Your task to perform on an android device: turn off data saver in the chrome app Image 0: 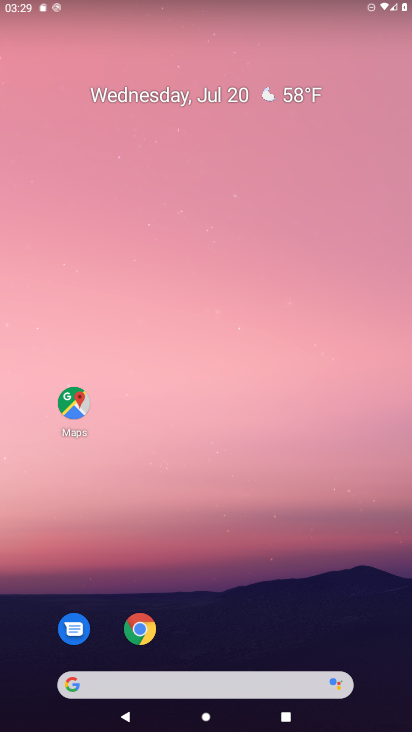
Step 0: drag from (282, 608) to (392, 236)
Your task to perform on an android device: turn off data saver in the chrome app Image 1: 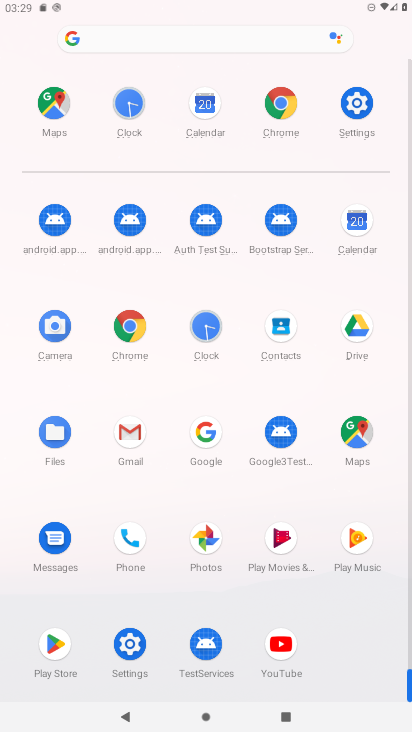
Step 1: click (127, 322)
Your task to perform on an android device: turn off data saver in the chrome app Image 2: 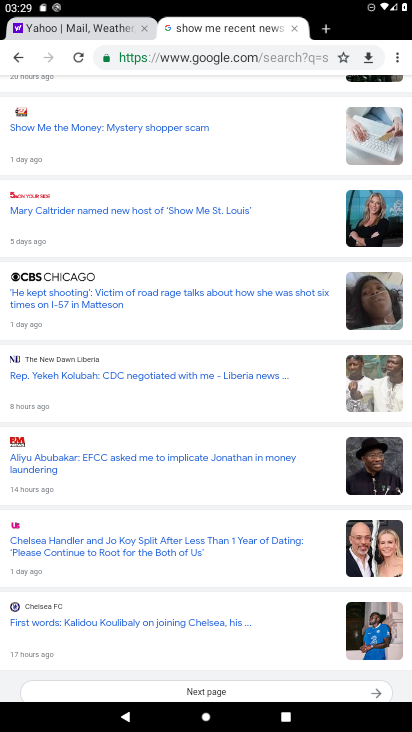
Step 2: drag from (392, 57) to (295, 355)
Your task to perform on an android device: turn off data saver in the chrome app Image 3: 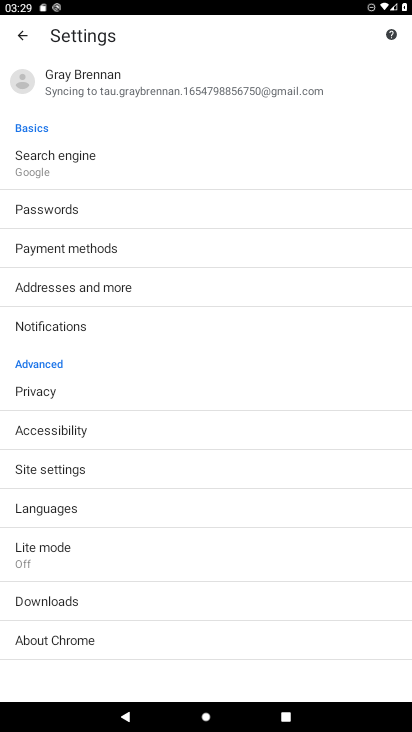
Step 3: drag from (165, 580) to (138, 244)
Your task to perform on an android device: turn off data saver in the chrome app Image 4: 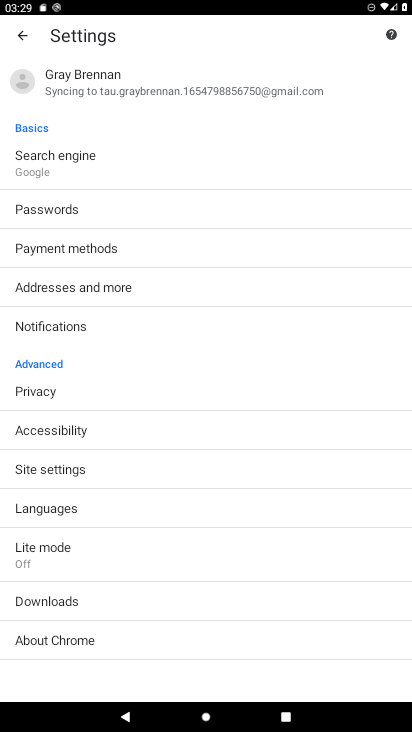
Step 4: click (47, 551)
Your task to perform on an android device: turn off data saver in the chrome app Image 5: 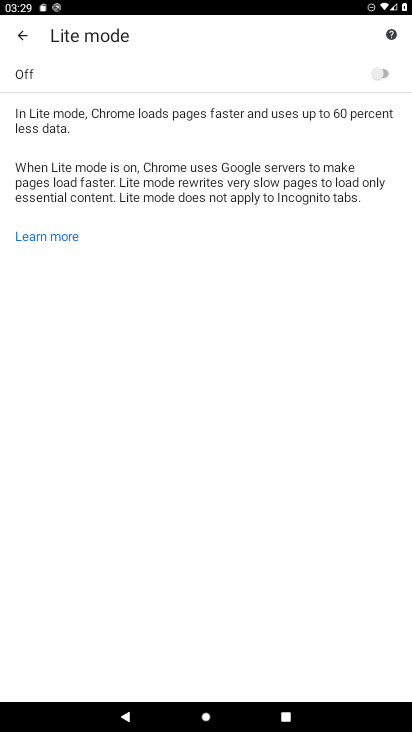
Step 5: task complete